Your task to perform on an android device: change your default location settings in chrome Image 0: 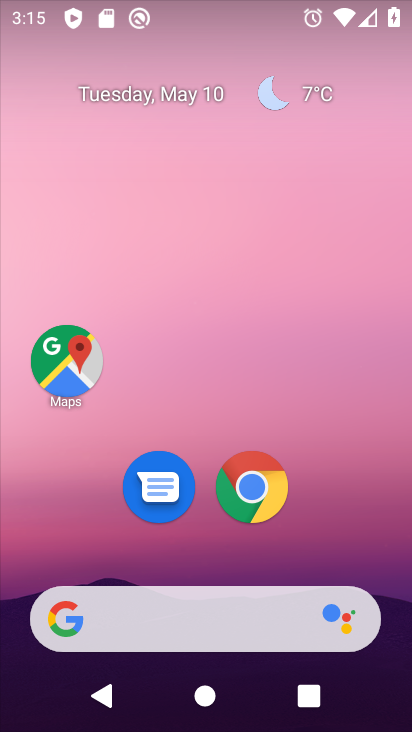
Step 0: click (263, 491)
Your task to perform on an android device: change your default location settings in chrome Image 1: 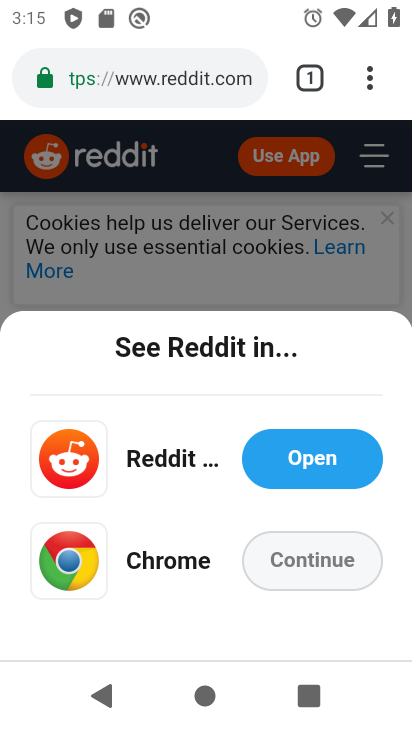
Step 1: drag from (366, 71) to (208, 546)
Your task to perform on an android device: change your default location settings in chrome Image 2: 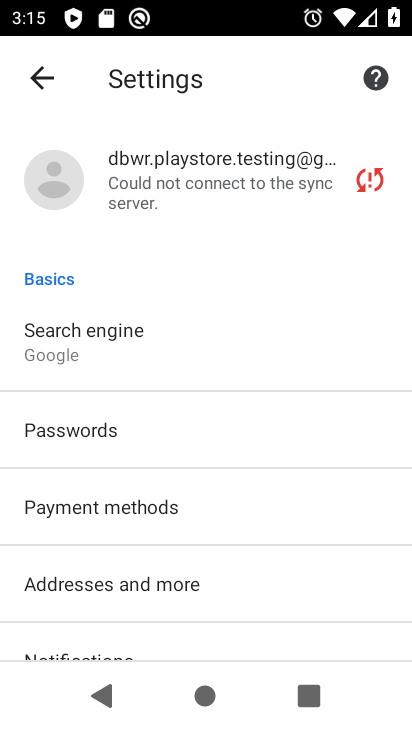
Step 2: click (98, 333)
Your task to perform on an android device: change your default location settings in chrome Image 3: 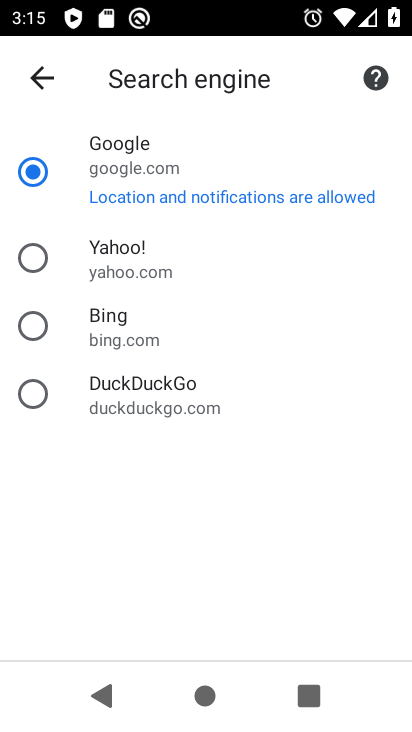
Step 3: click (48, 73)
Your task to perform on an android device: change your default location settings in chrome Image 4: 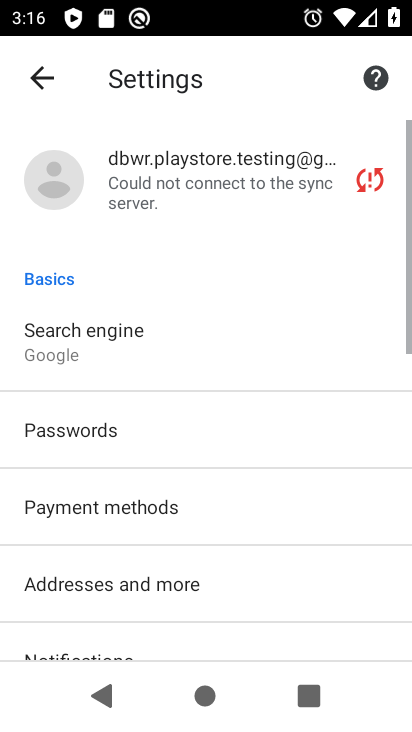
Step 4: drag from (190, 584) to (287, 229)
Your task to perform on an android device: change your default location settings in chrome Image 5: 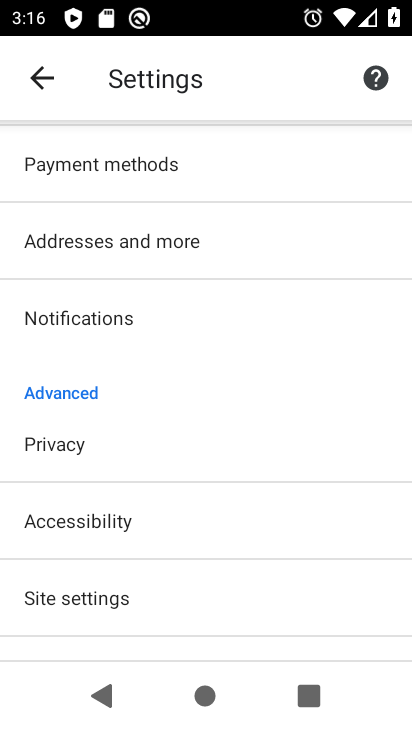
Step 5: drag from (222, 506) to (280, 263)
Your task to perform on an android device: change your default location settings in chrome Image 6: 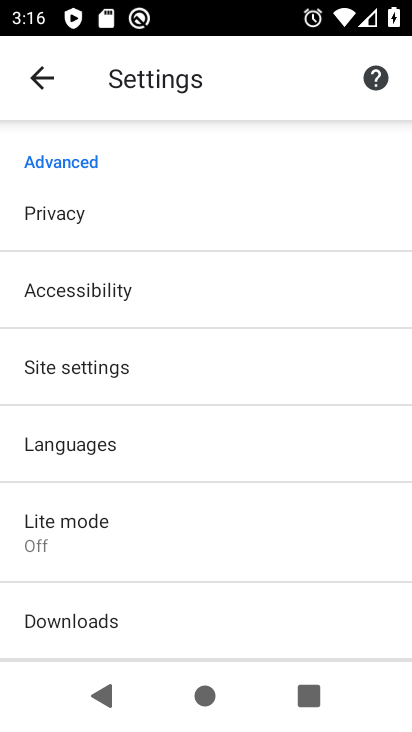
Step 6: click (117, 367)
Your task to perform on an android device: change your default location settings in chrome Image 7: 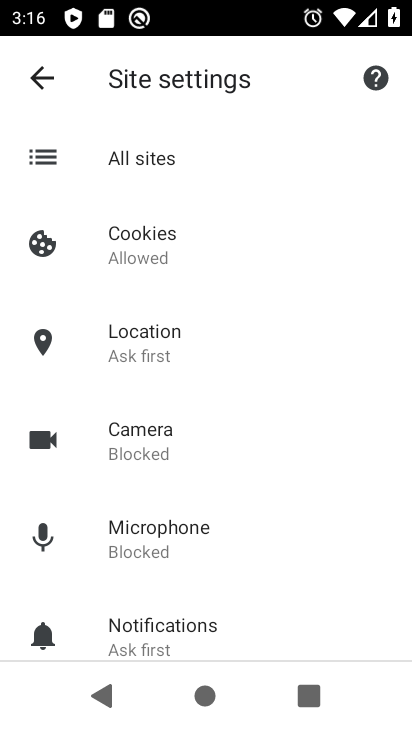
Step 7: click (149, 342)
Your task to perform on an android device: change your default location settings in chrome Image 8: 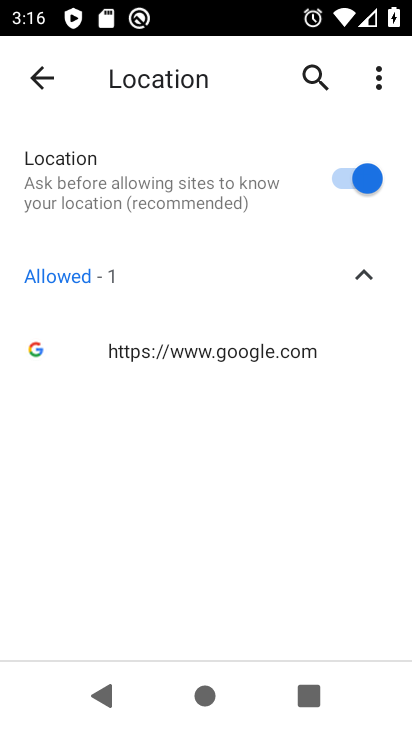
Step 8: click (341, 182)
Your task to perform on an android device: change your default location settings in chrome Image 9: 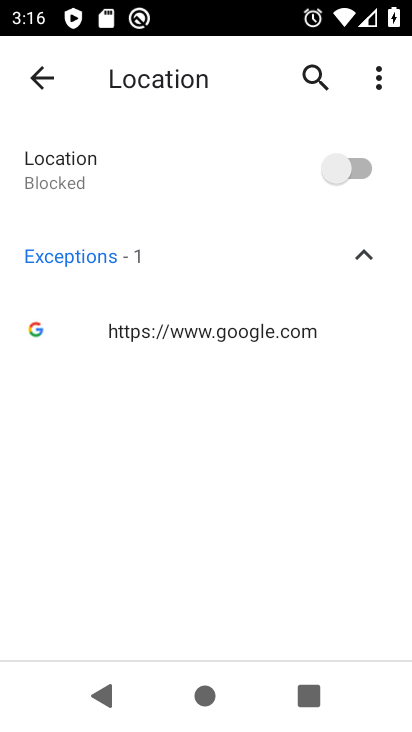
Step 9: task complete